Your task to perform on an android device: move a message to another label in the gmail app Image 0: 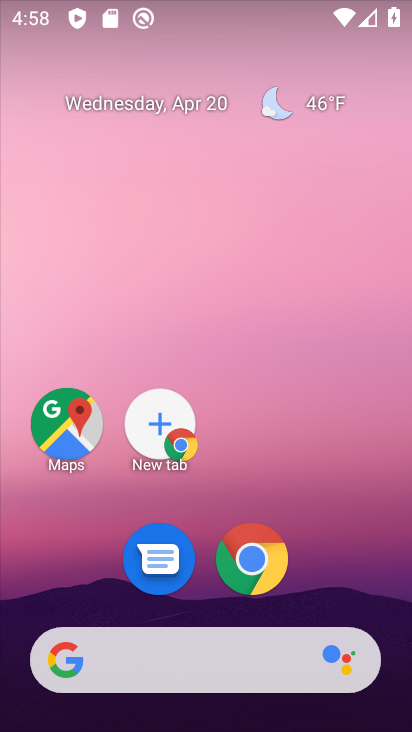
Step 0: drag from (357, 530) to (360, 152)
Your task to perform on an android device: move a message to another label in the gmail app Image 1: 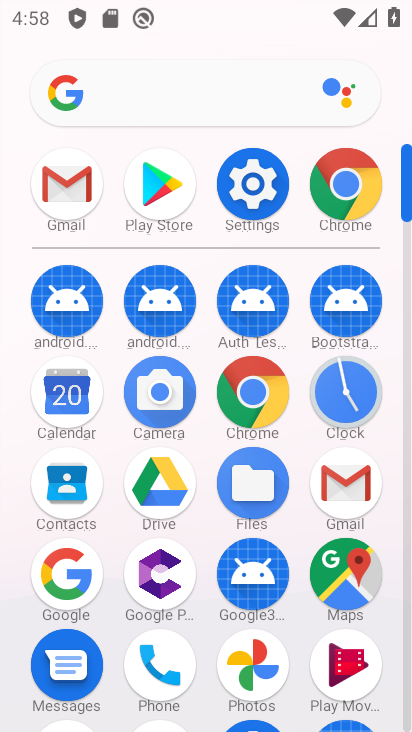
Step 1: click (344, 484)
Your task to perform on an android device: move a message to another label in the gmail app Image 2: 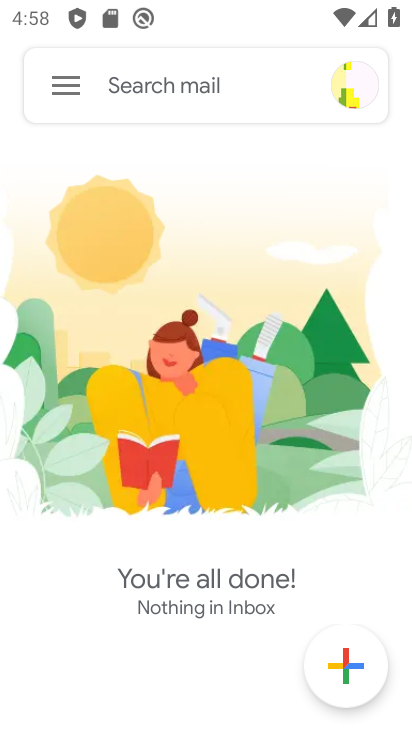
Step 2: click (56, 101)
Your task to perform on an android device: move a message to another label in the gmail app Image 3: 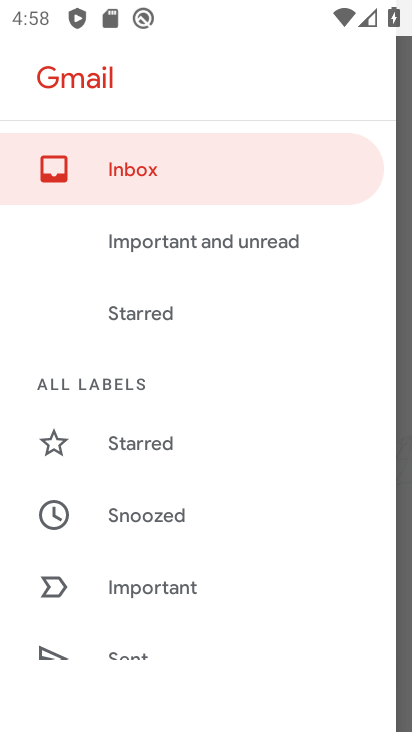
Step 3: drag from (135, 591) to (155, 305)
Your task to perform on an android device: move a message to another label in the gmail app Image 4: 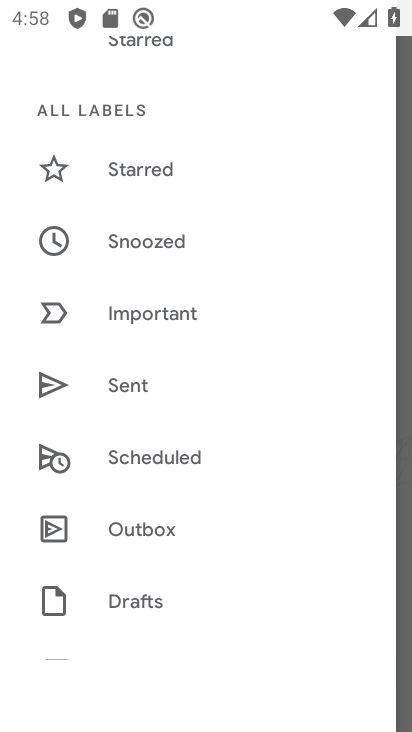
Step 4: drag from (136, 569) to (149, 374)
Your task to perform on an android device: move a message to another label in the gmail app Image 5: 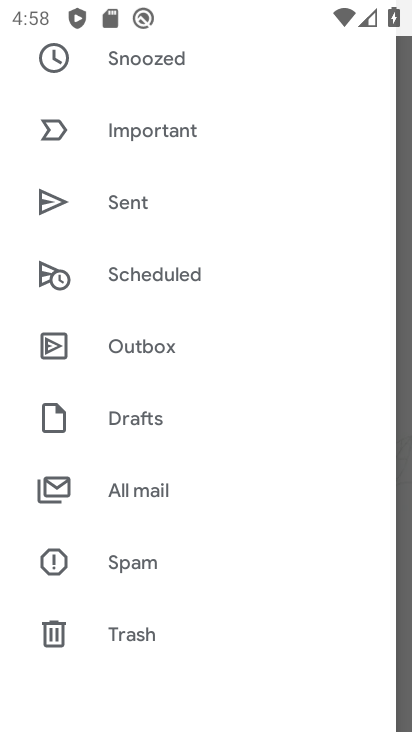
Step 5: click (141, 501)
Your task to perform on an android device: move a message to another label in the gmail app Image 6: 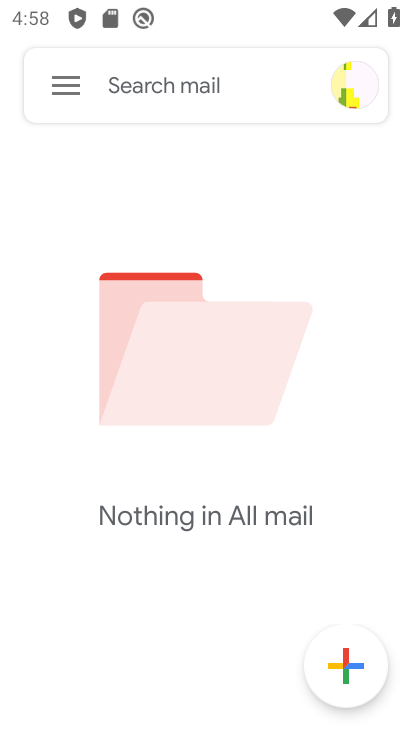
Step 6: task complete